Your task to perform on an android device: Open ESPN.com Image 0: 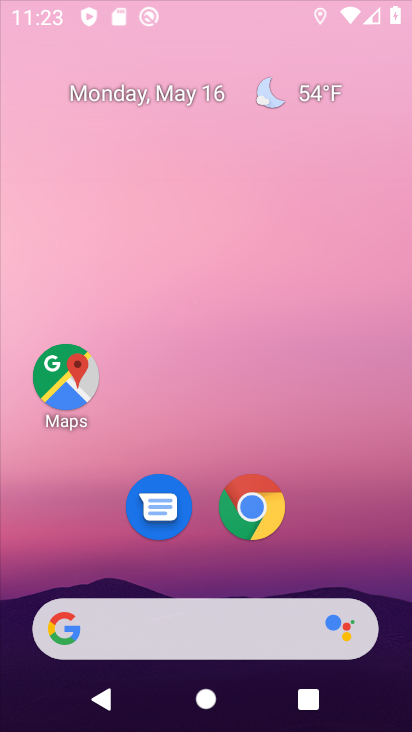
Step 0: drag from (394, 557) to (359, 103)
Your task to perform on an android device: Open ESPN.com Image 1: 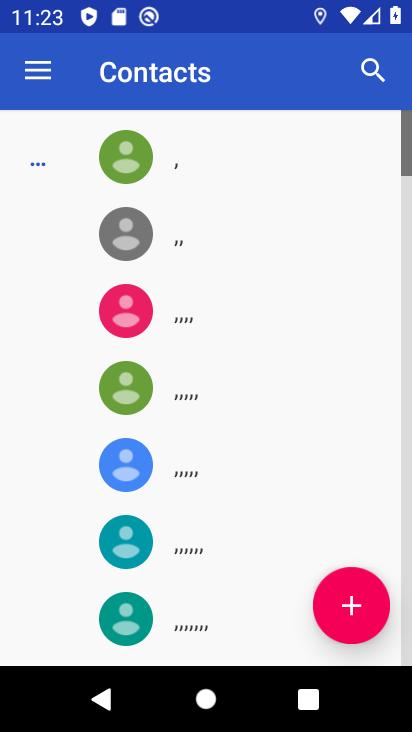
Step 1: press home button
Your task to perform on an android device: Open ESPN.com Image 2: 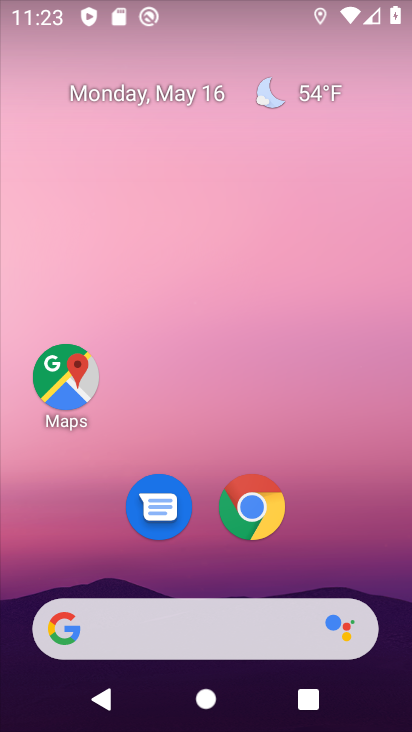
Step 2: click (268, 505)
Your task to perform on an android device: Open ESPN.com Image 3: 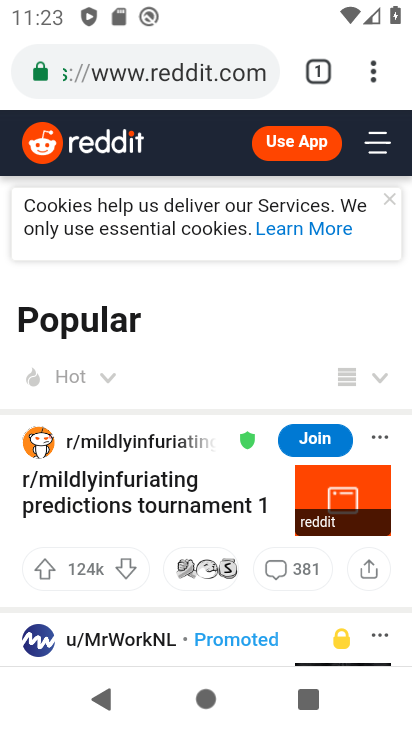
Step 3: click (193, 58)
Your task to perform on an android device: Open ESPN.com Image 4: 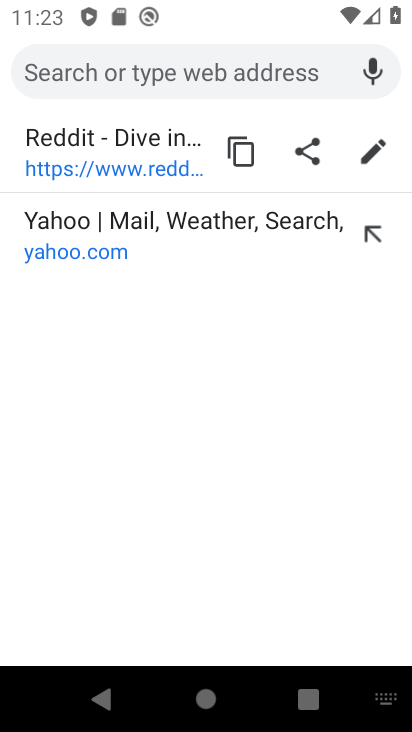
Step 4: type "espn.com"
Your task to perform on an android device: Open ESPN.com Image 5: 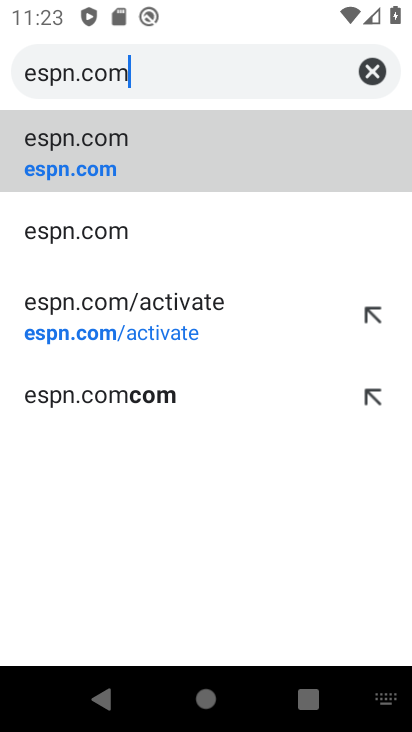
Step 5: click (96, 162)
Your task to perform on an android device: Open ESPN.com Image 6: 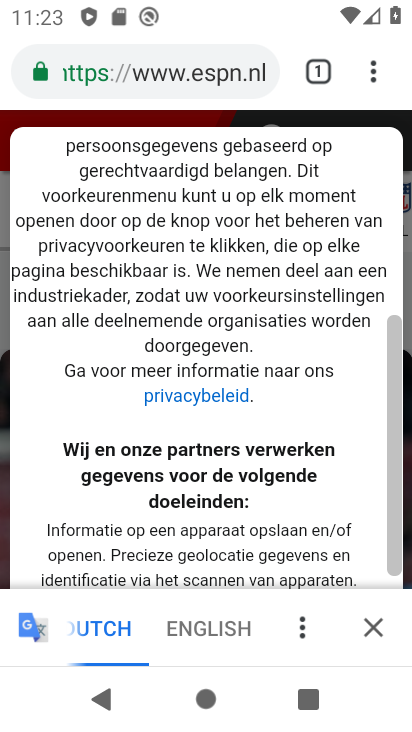
Step 6: task complete